Your task to perform on an android device: turn off wifi Image 0: 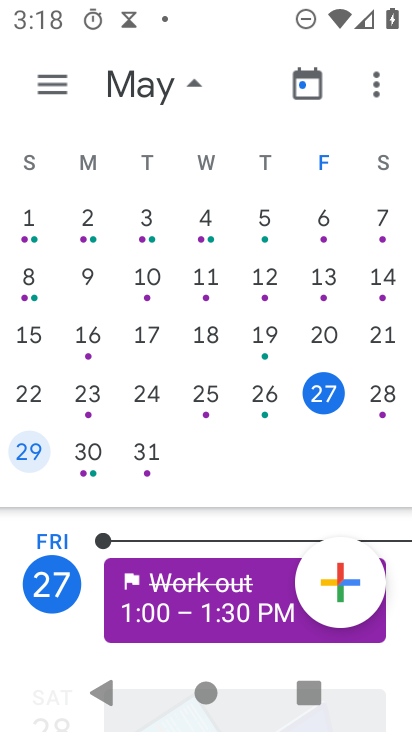
Step 0: press home button
Your task to perform on an android device: turn off wifi Image 1: 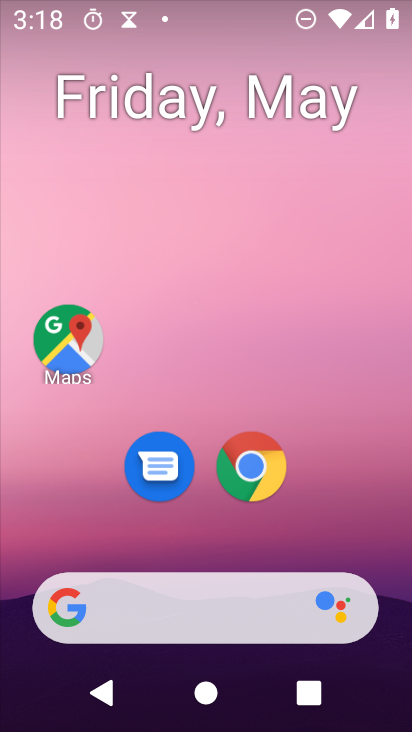
Step 1: drag from (342, 522) to (375, 6)
Your task to perform on an android device: turn off wifi Image 2: 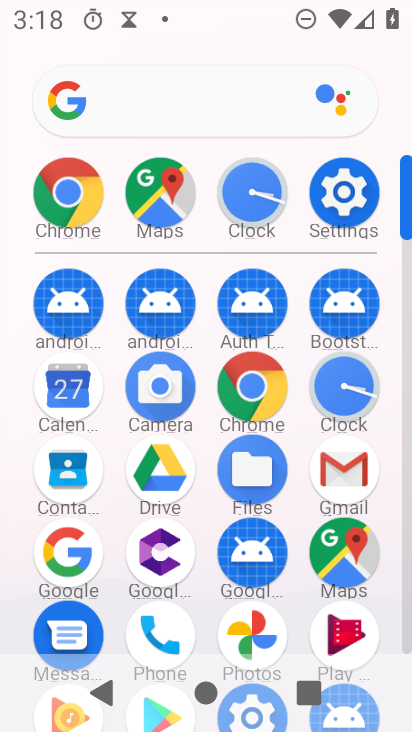
Step 2: click (342, 195)
Your task to perform on an android device: turn off wifi Image 3: 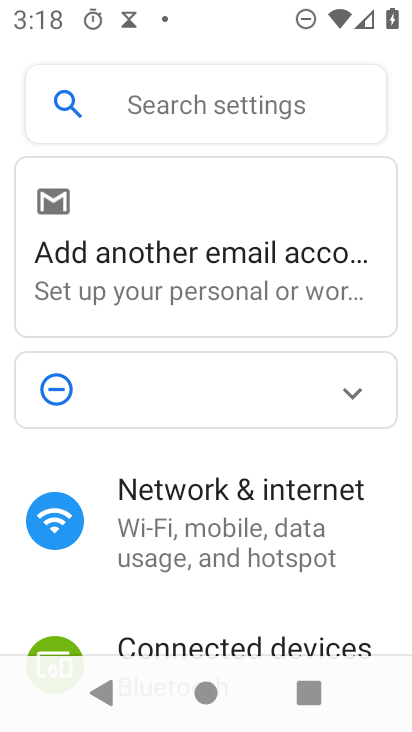
Step 3: click (230, 522)
Your task to perform on an android device: turn off wifi Image 4: 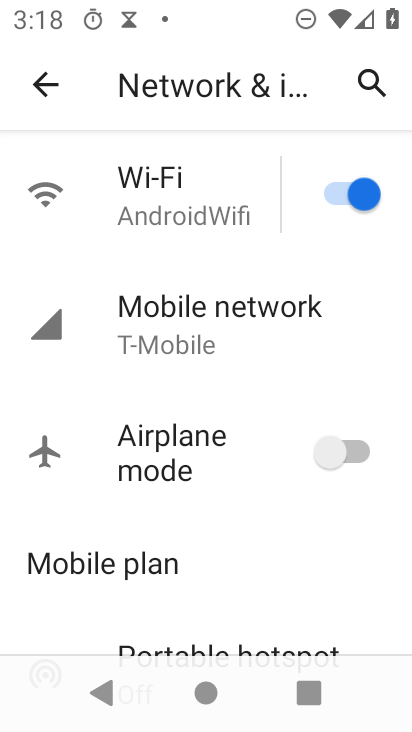
Step 4: click (338, 194)
Your task to perform on an android device: turn off wifi Image 5: 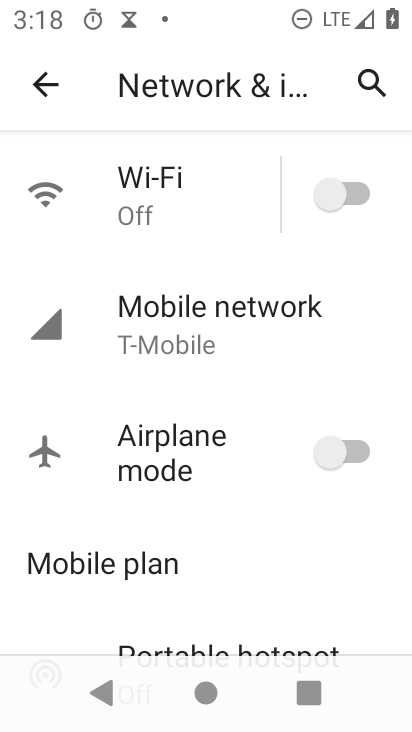
Step 5: task complete